Your task to perform on an android device: open chrome and create a bookmark for the current page Image 0: 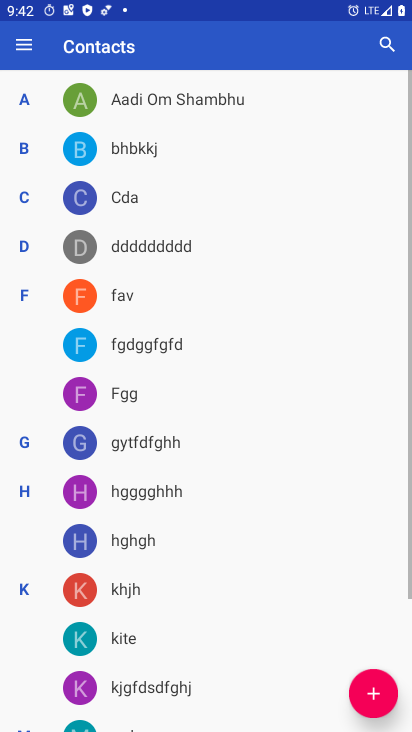
Step 0: press home button
Your task to perform on an android device: open chrome and create a bookmark for the current page Image 1: 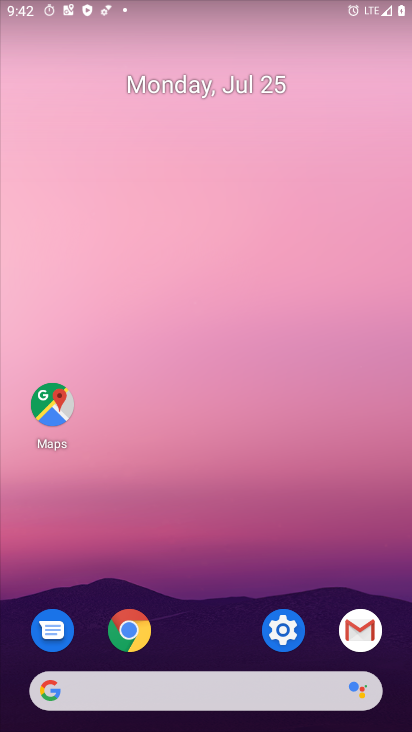
Step 1: click (134, 635)
Your task to perform on an android device: open chrome and create a bookmark for the current page Image 2: 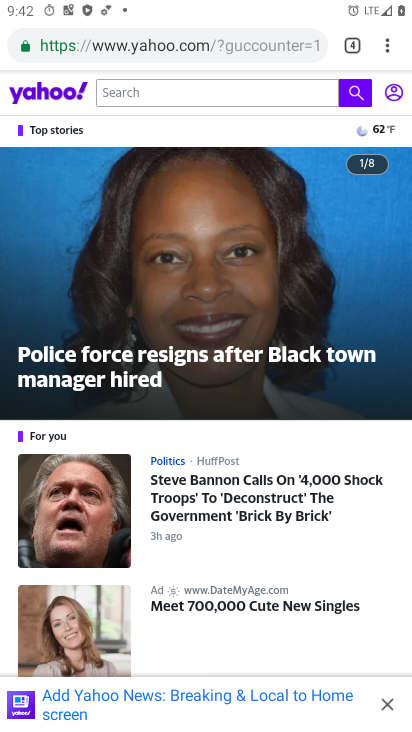
Step 2: click (388, 49)
Your task to perform on an android device: open chrome and create a bookmark for the current page Image 3: 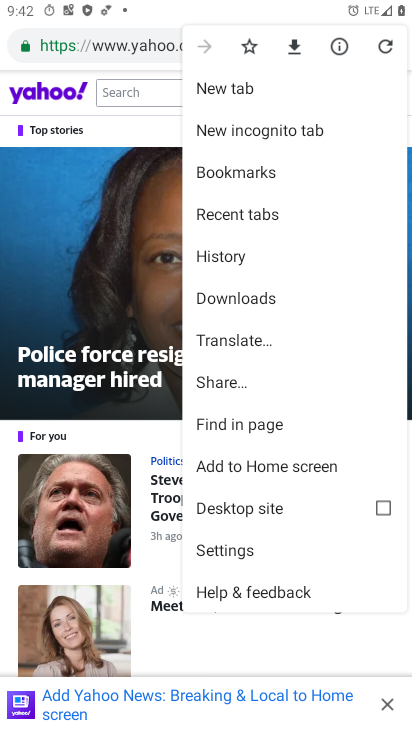
Step 3: click (239, 180)
Your task to perform on an android device: open chrome and create a bookmark for the current page Image 4: 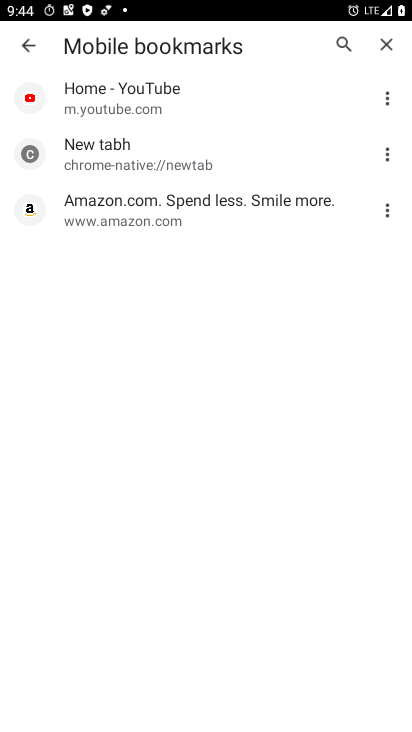
Step 4: task complete